Your task to perform on an android device: turn smart compose on in the gmail app Image 0: 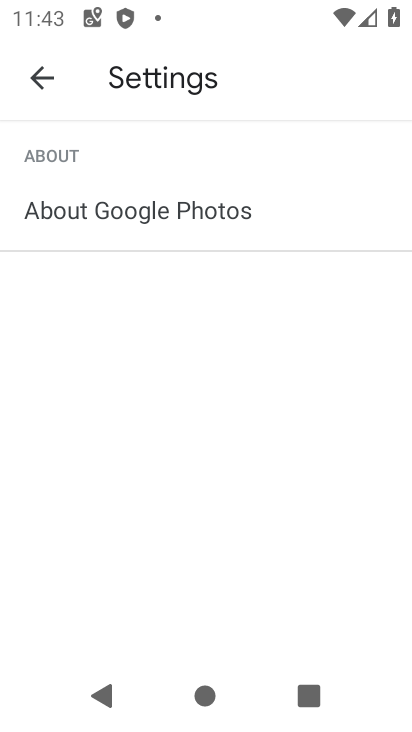
Step 0: press home button
Your task to perform on an android device: turn smart compose on in the gmail app Image 1: 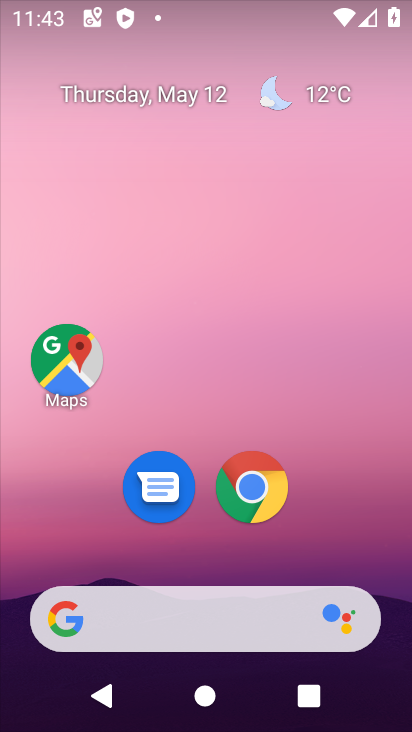
Step 1: drag from (359, 572) to (358, 7)
Your task to perform on an android device: turn smart compose on in the gmail app Image 2: 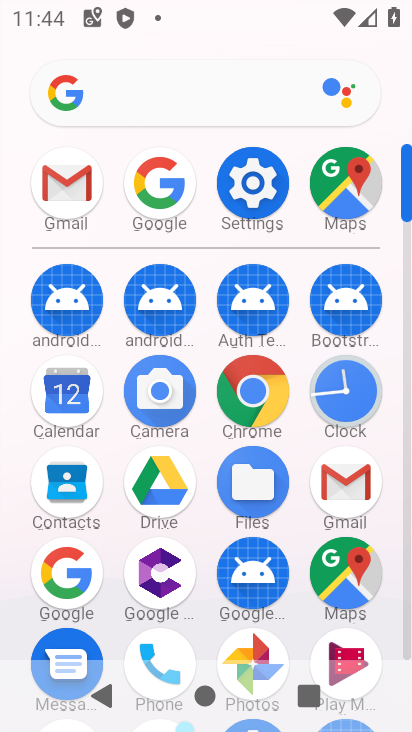
Step 2: click (63, 190)
Your task to perform on an android device: turn smart compose on in the gmail app Image 3: 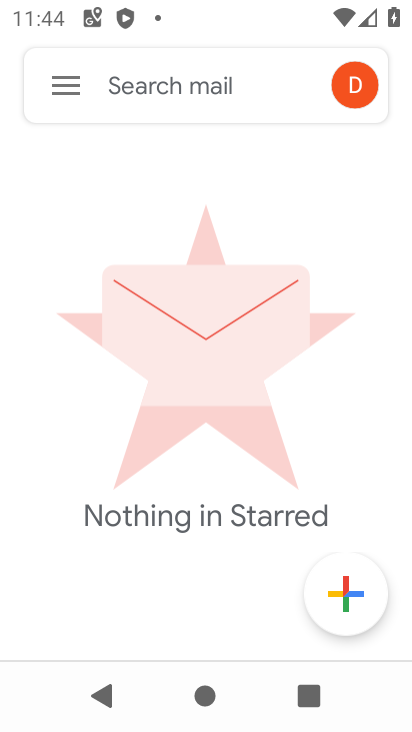
Step 3: click (70, 66)
Your task to perform on an android device: turn smart compose on in the gmail app Image 4: 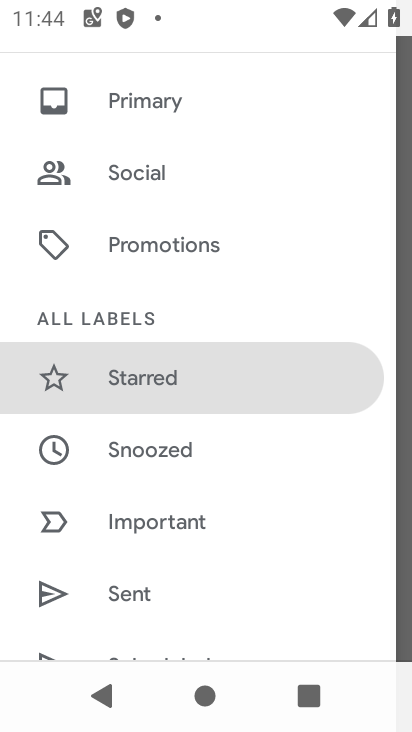
Step 4: drag from (272, 576) to (259, 7)
Your task to perform on an android device: turn smart compose on in the gmail app Image 5: 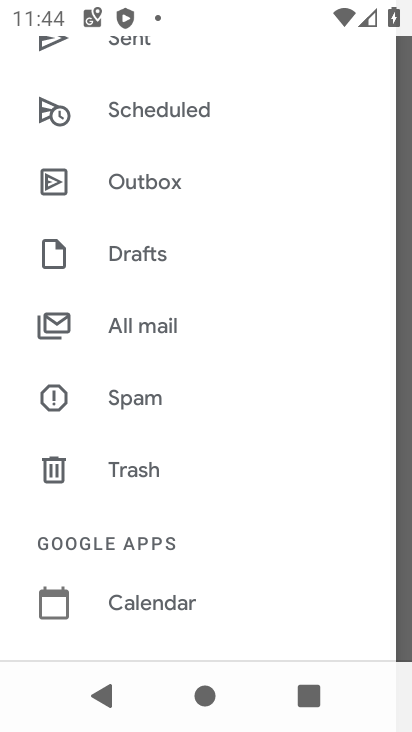
Step 5: drag from (285, 522) to (194, 14)
Your task to perform on an android device: turn smart compose on in the gmail app Image 6: 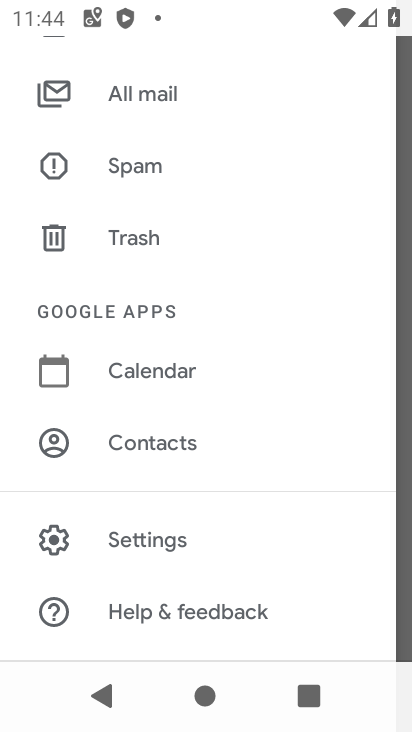
Step 6: click (166, 544)
Your task to perform on an android device: turn smart compose on in the gmail app Image 7: 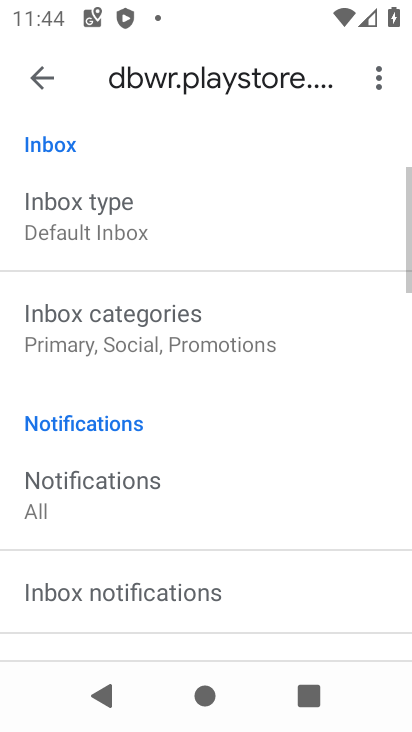
Step 7: task complete